Your task to perform on an android device: Show me recent news Image 0: 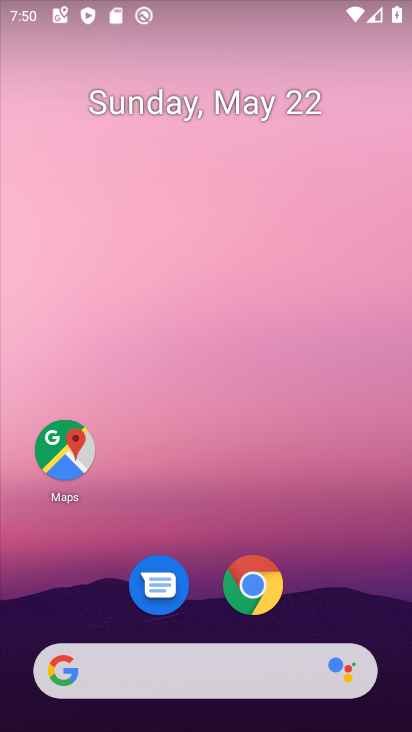
Step 0: click (244, 664)
Your task to perform on an android device: Show me recent news Image 1: 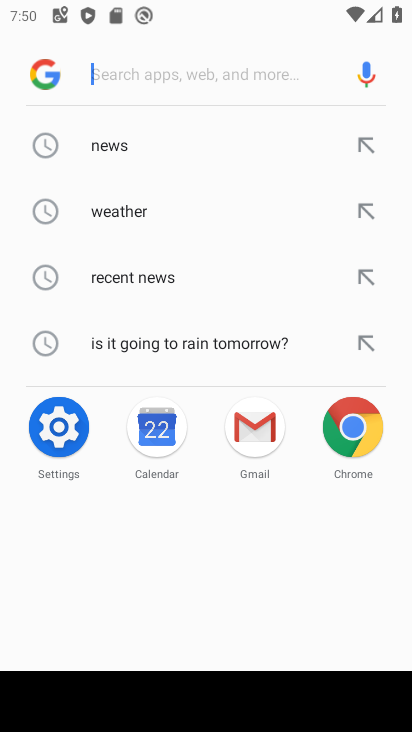
Step 1: click (67, 263)
Your task to perform on an android device: Show me recent news Image 2: 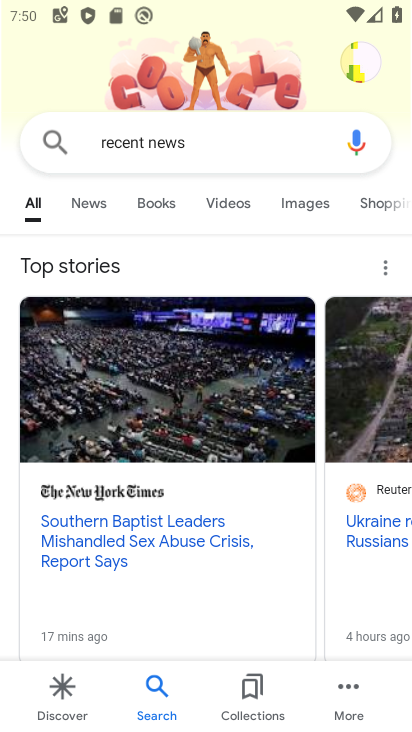
Step 2: task complete